Your task to perform on an android device: Open Wikipedia Image 0: 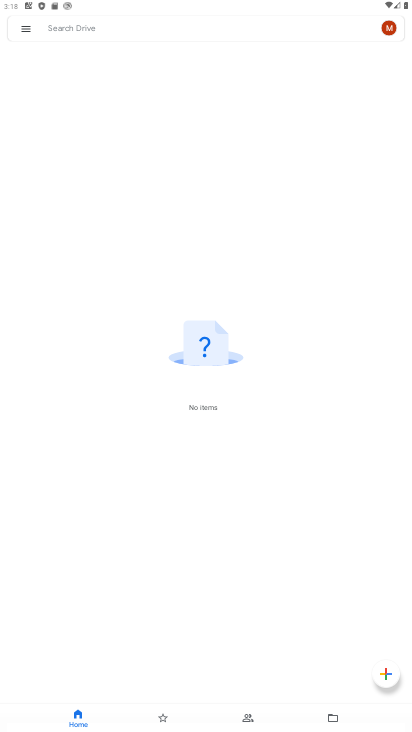
Step 0: press home button
Your task to perform on an android device: Open Wikipedia Image 1: 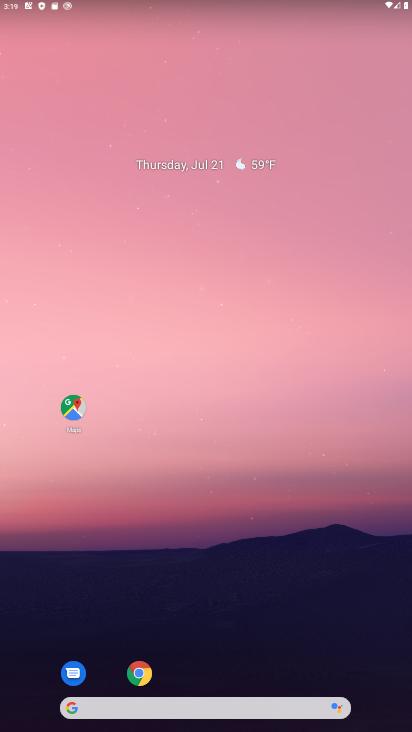
Step 1: click (135, 675)
Your task to perform on an android device: Open Wikipedia Image 2: 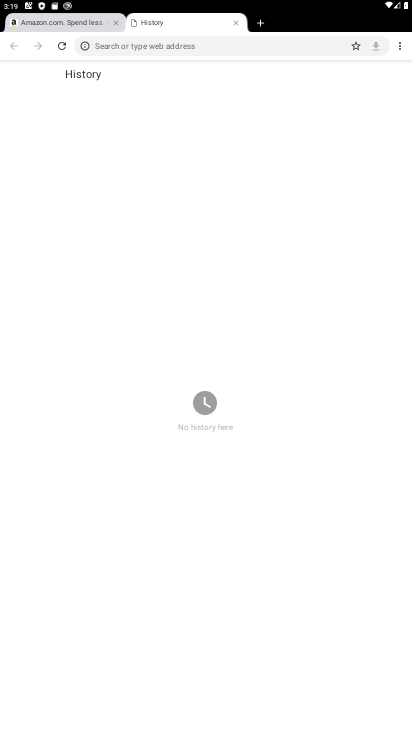
Step 2: click (262, 25)
Your task to perform on an android device: Open Wikipedia Image 3: 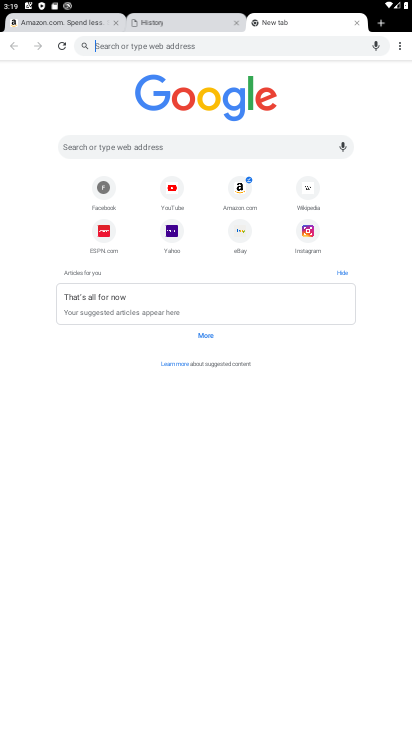
Step 3: click (310, 187)
Your task to perform on an android device: Open Wikipedia Image 4: 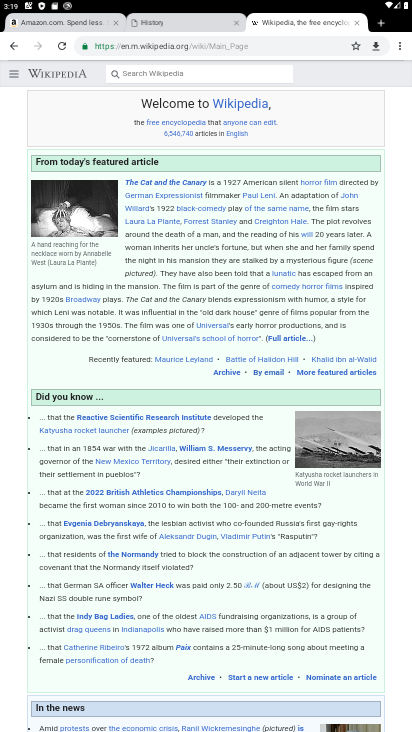
Step 4: task complete